Your task to perform on an android device: Go to Google maps Image 0: 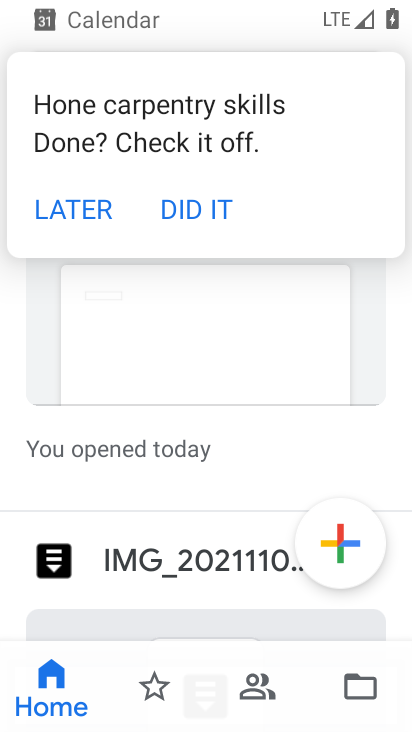
Step 0: press home button
Your task to perform on an android device: Go to Google maps Image 1: 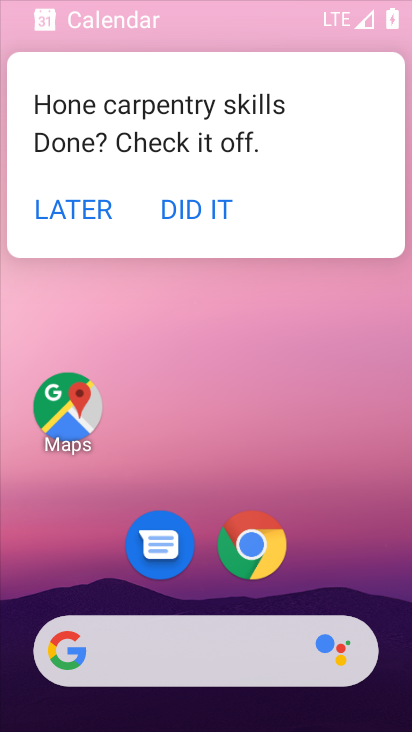
Step 1: click (71, 209)
Your task to perform on an android device: Go to Google maps Image 2: 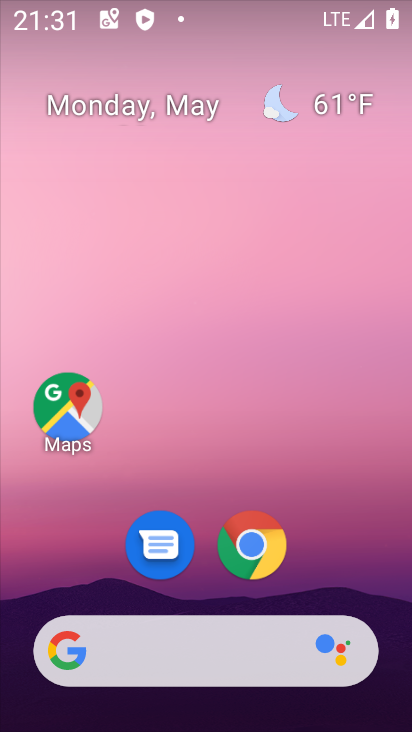
Step 2: click (58, 425)
Your task to perform on an android device: Go to Google maps Image 3: 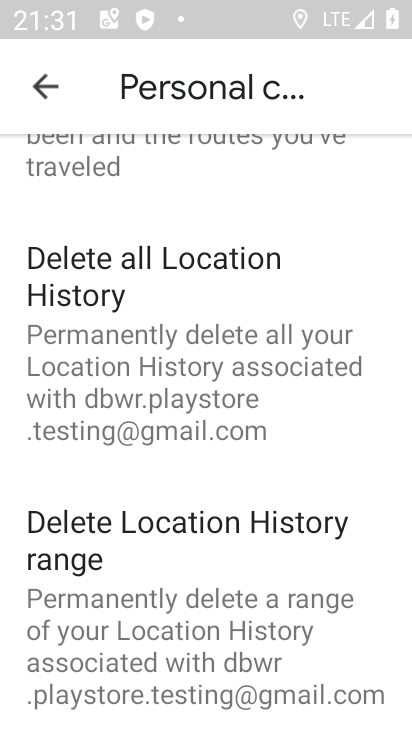
Step 3: task complete